Your task to perform on an android device: Go to display settings Image 0: 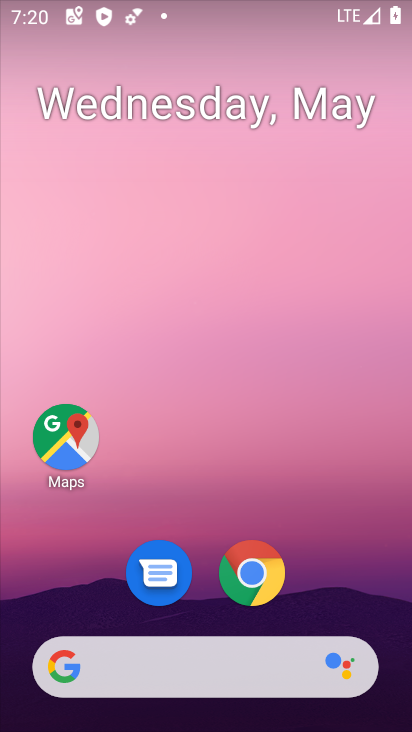
Step 0: drag from (316, 596) to (267, 235)
Your task to perform on an android device: Go to display settings Image 1: 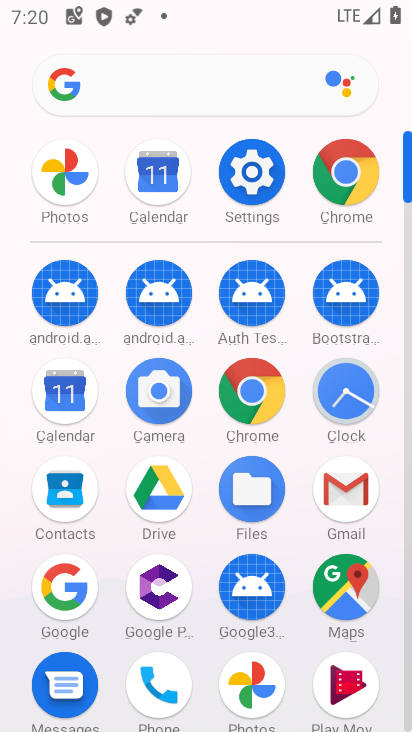
Step 1: click (245, 188)
Your task to perform on an android device: Go to display settings Image 2: 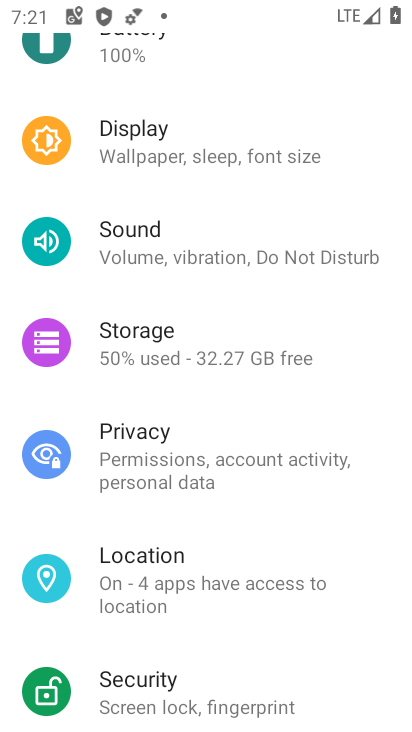
Step 2: click (125, 145)
Your task to perform on an android device: Go to display settings Image 3: 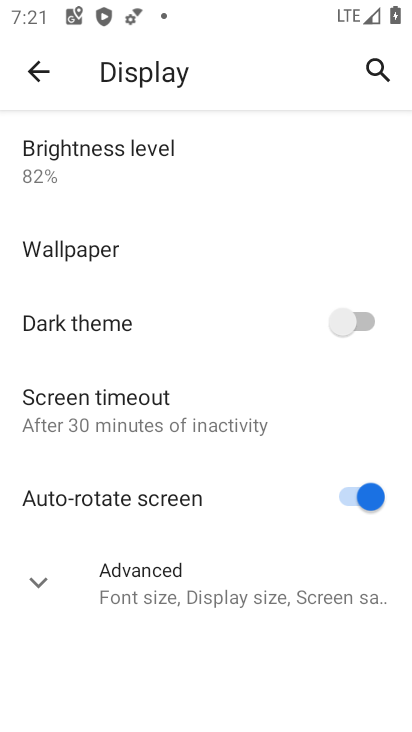
Step 3: task complete